Your task to perform on an android device: open device folders in google photos Image 0: 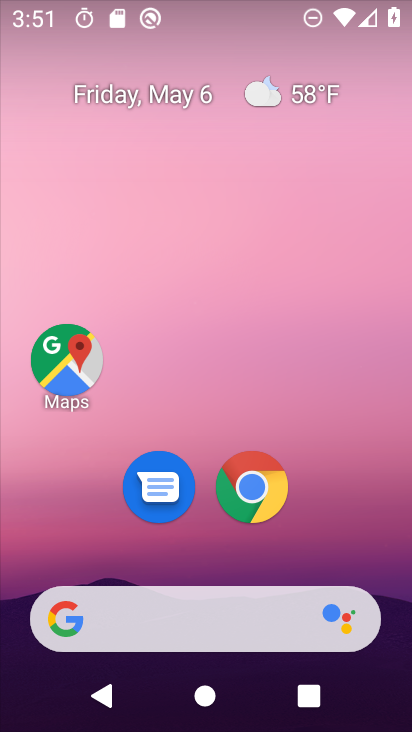
Step 0: drag from (303, 551) to (241, 49)
Your task to perform on an android device: open device folders in google photos Image 1: 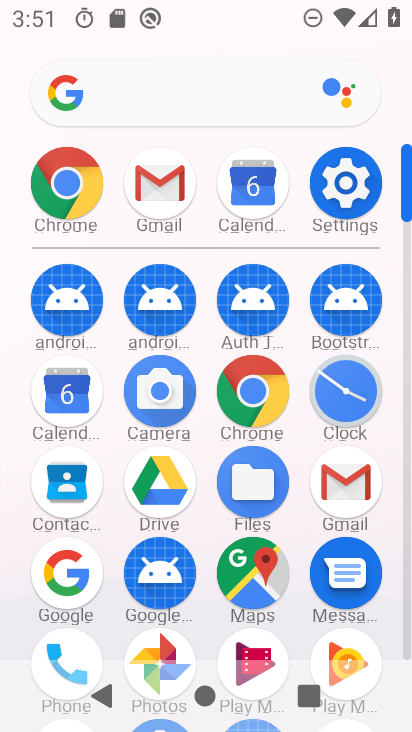
Step 1: click (149, 639)
Your task to perform on an android device: open device folders in google photos Image 2: 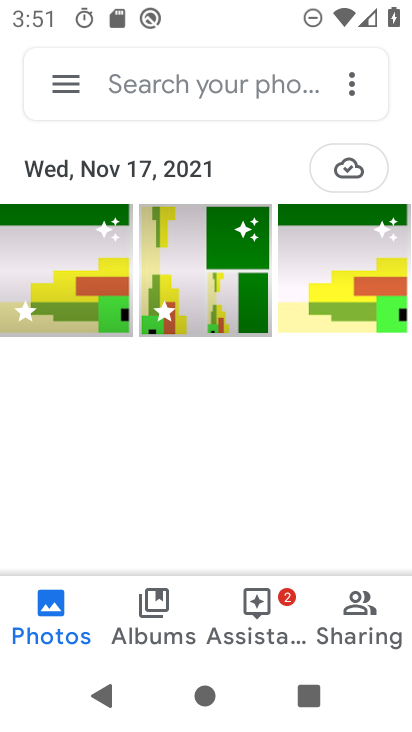
Step 2: click (60, 80)
Your task to perform on an android device: open device folders in google photos Image 3: 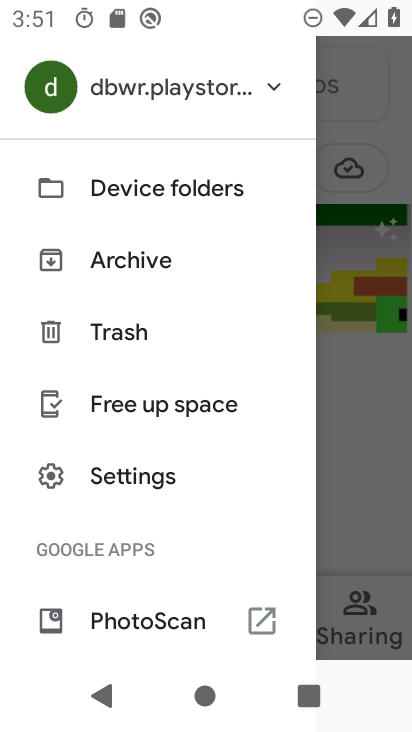
Step 3: click (136, 185)
Your task to perform on an android device: open device folders in google photos Image 4: 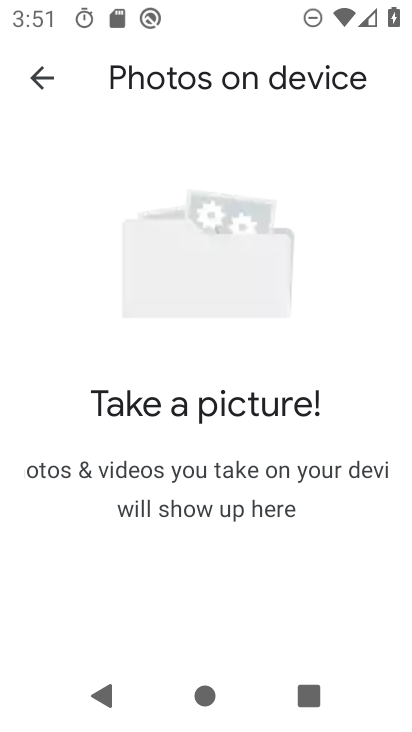
Step 4: task complete